Your task to perform on an android device: turn on sleep mode Image 0: 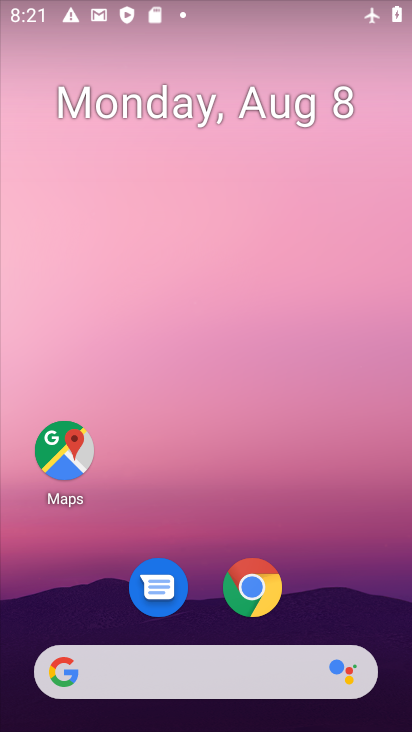
Step 0: drag from (196, 643) to (222, 252)
Your task to perform on an android device: turn on sleep mode Image 1: 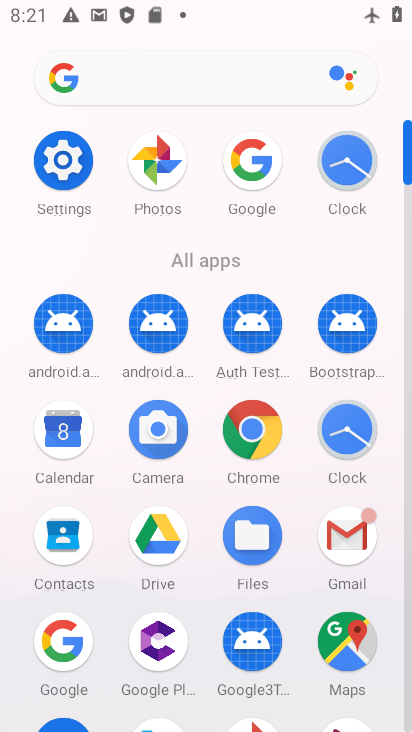
Step 1: click (159, 182)
Your task to perform on an android device: turn on sleep mode Image 2: 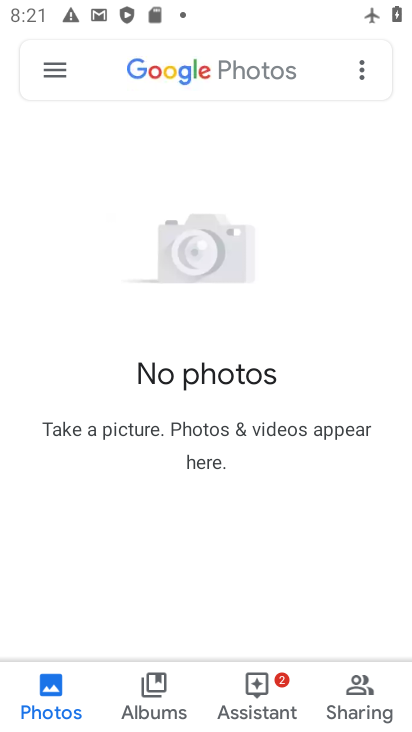
Step 2: task complete